Your task to perform on an android device: turn off sleep mode Image 0: 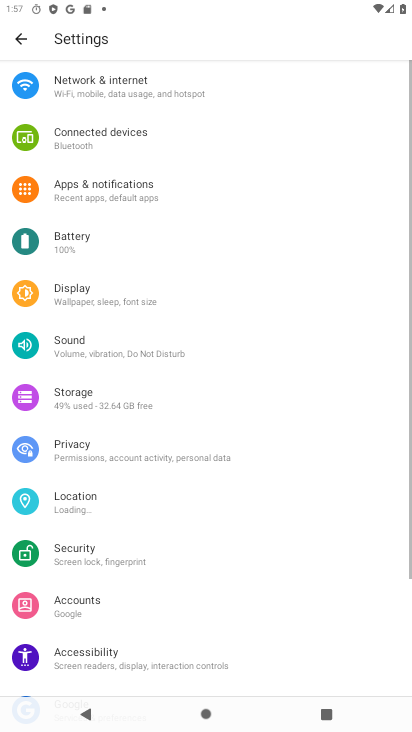
Step 0: press home button
Your task to perform on an android device: turn off sleep mode Image 1: 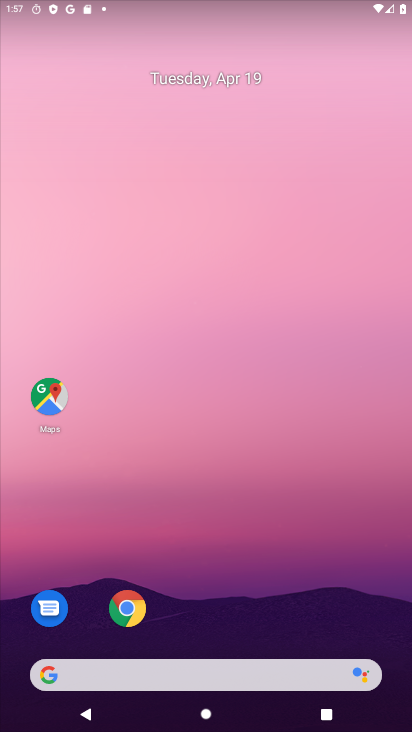
Step 1: drag from (240, 624) to (229, 155)
Your task to perform on an android device: turn off sleep mode Image 2: 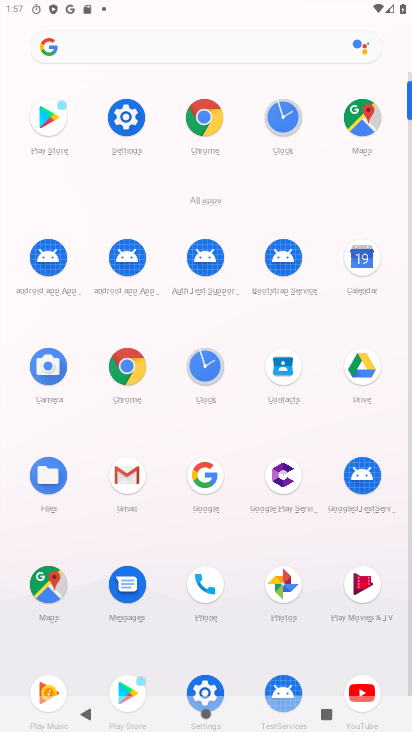
Step 2: click (127, 123)
Your task to perform on an android device: turn off sleep mode Image 3: 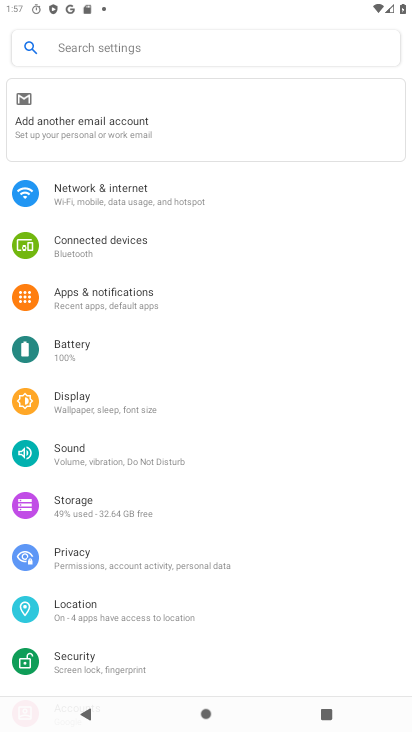
Step 3: click (156, 410)
Your task to perform on an android device: turn off sleep mode Image 4: 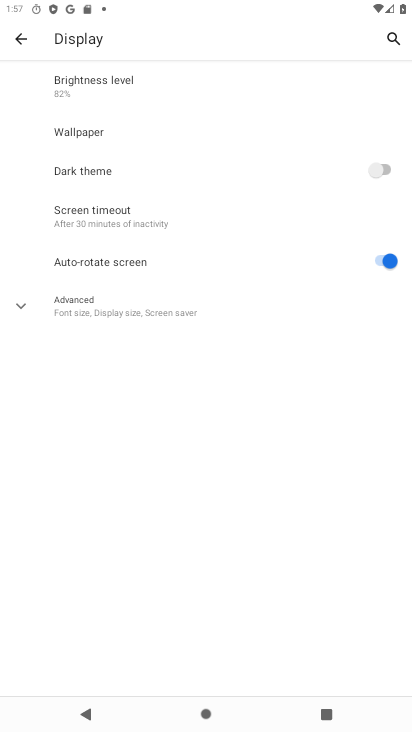
Step 4: click (140, 326)
Your task to perform on an android device: turn off sleep mode Image 5: 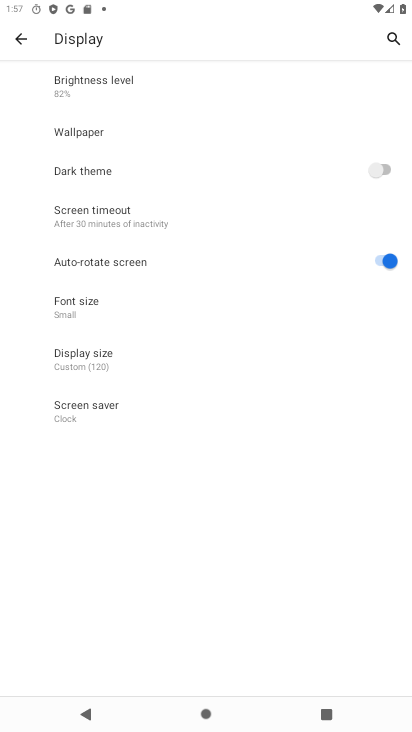
Step 5: task complete